Your task to perform on an android device: see creations saved in the google photos Image 0: 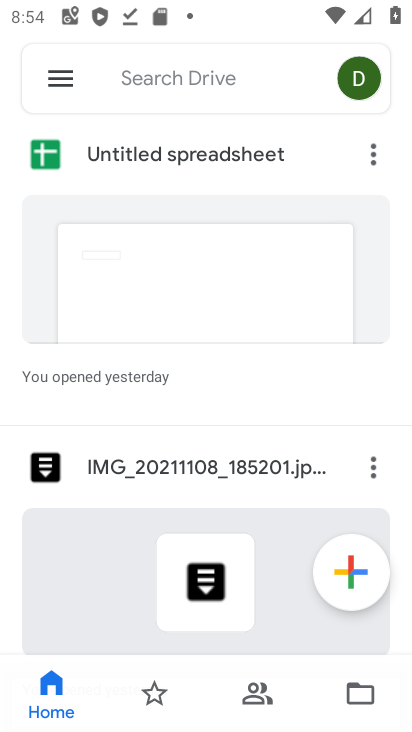
Step 0: press back button
Your task to perform on an android device: see creations saved in the google photos Image 1: 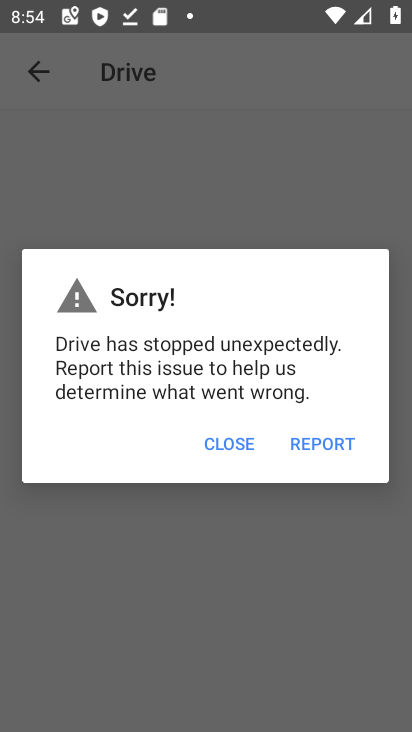
Step 1: click (246, 435)
Your task to perform on an android device: see creations saved in the google photos Image 2: 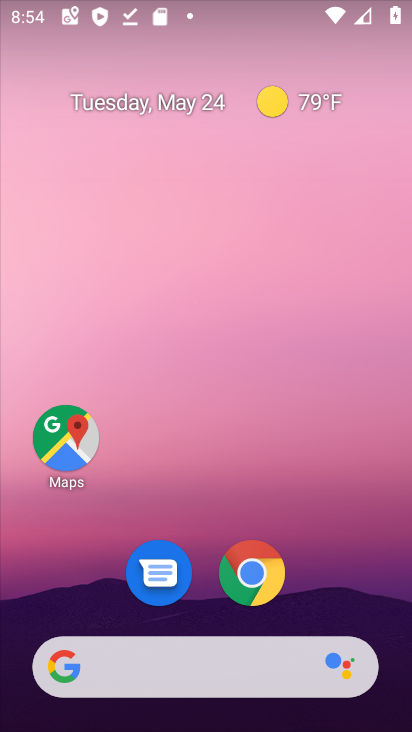
Step 2: drag from (278, 692) to (82, 106)
Your task to perform on an android device: see creations saved in the google photos Image 3: 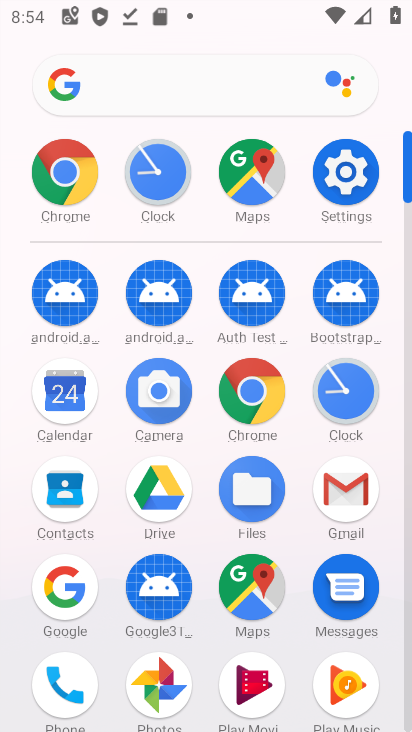
Step 3: click (160, 699)
Your task to perform on an android device: see creations saved in the google photos Image 4: 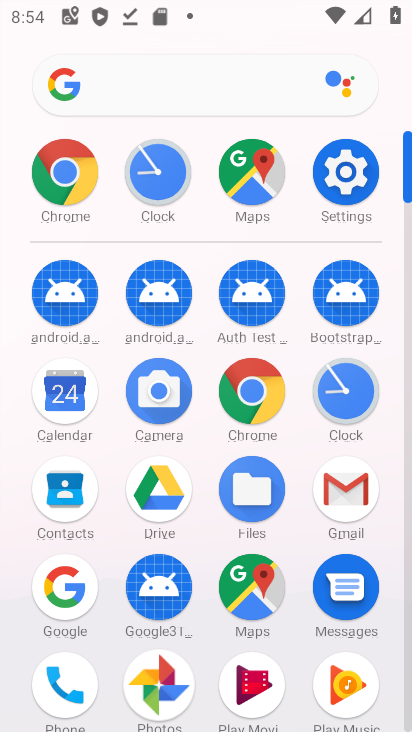
Step 4: click (165, 698)
Your task to perform on an android device: see creations saved in the google photos Image 5: 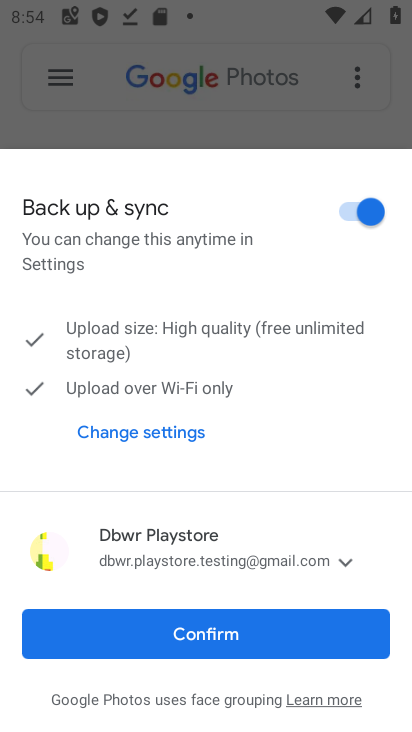
Step 5: press back button
Your task to perform on an android device: see creations saved in the google photos Image 6: 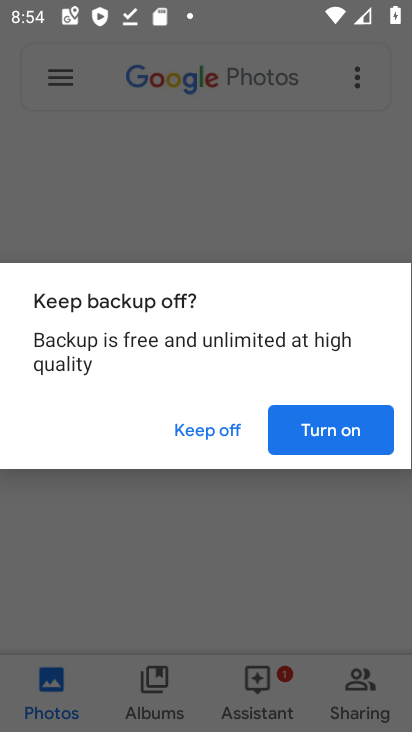
Step 6: click (202, 424)
Your task to perform on an android device: see creations saved in the google photos Image 7: 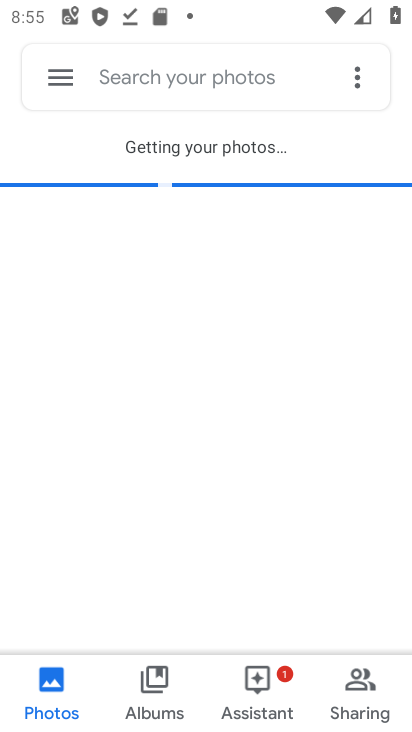
Step 7: press back button
Your task to perform on an android device: see creations saved in the google photos Image 8: 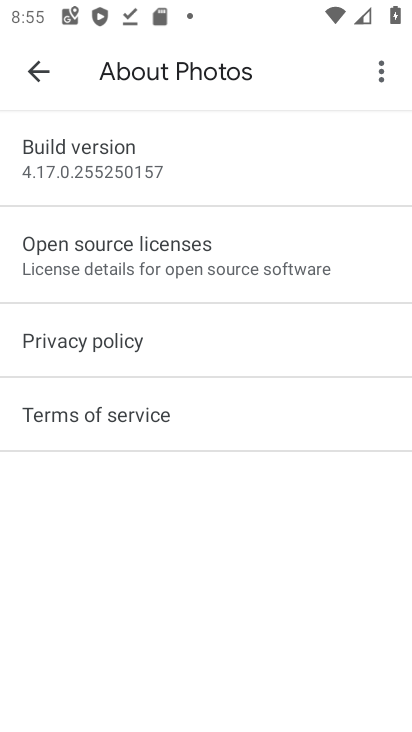
Step 8: click (29, 79)
Your task to perform on an android device: see creations saved in the google photos Image 9: 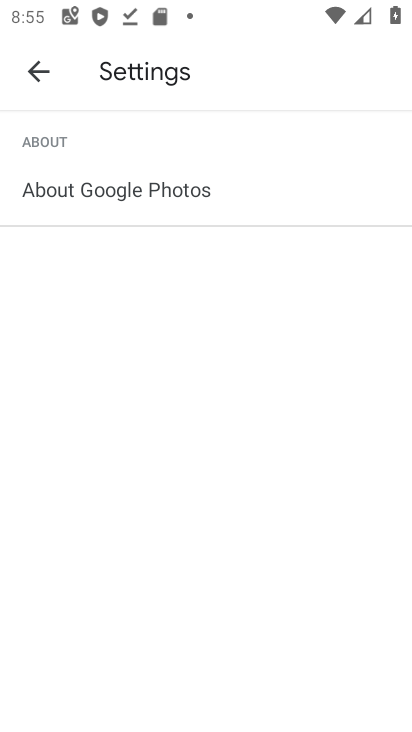
Step 9: click (34, 64)
Your task to perform on an android device: see creations saved in the google photos Image 10: 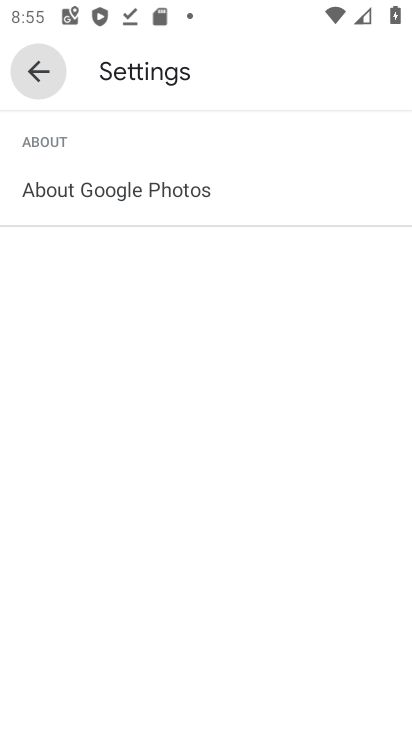
Step 10: click (35, 67)
Your task to perform on an android device: see creations saved in the google photos Image 11: 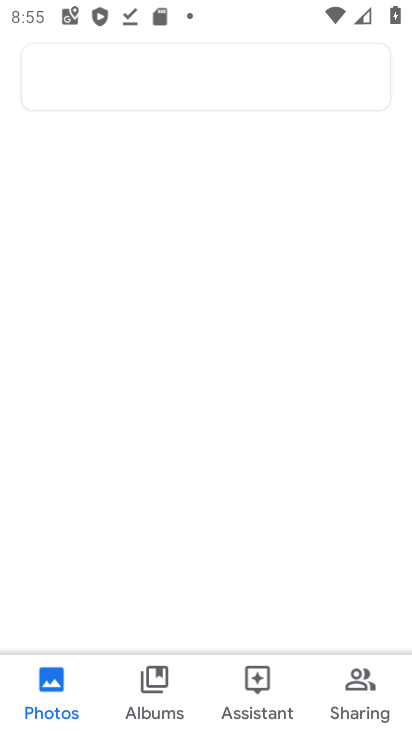
Step 11: click (43, 71)
Your task to perform on an android device: see creations saved in the google photos Image 12: 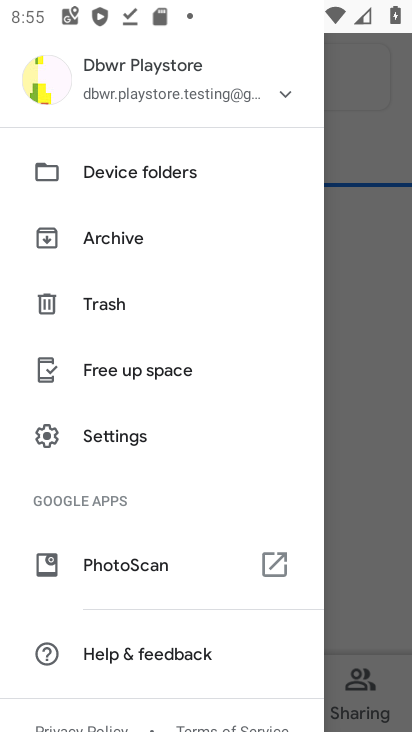
Step 12: task complete